Your task to perform on an android device: turn smart compose on in the gmail app Image 0: 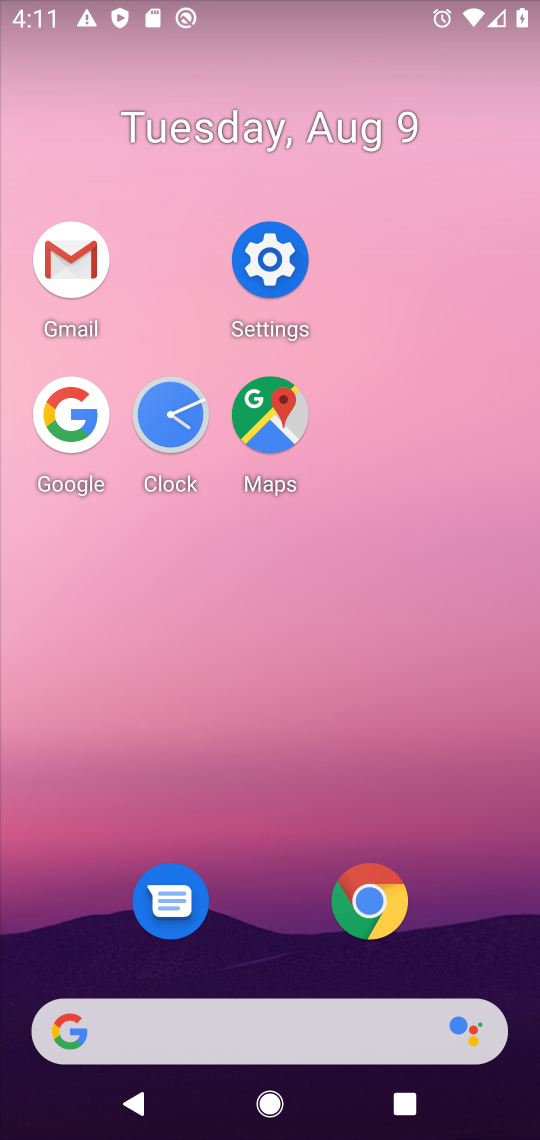
Step 0: click (50, 284)
Your task to perform on an android device: turn smart compose on in the gmail app Image 1: 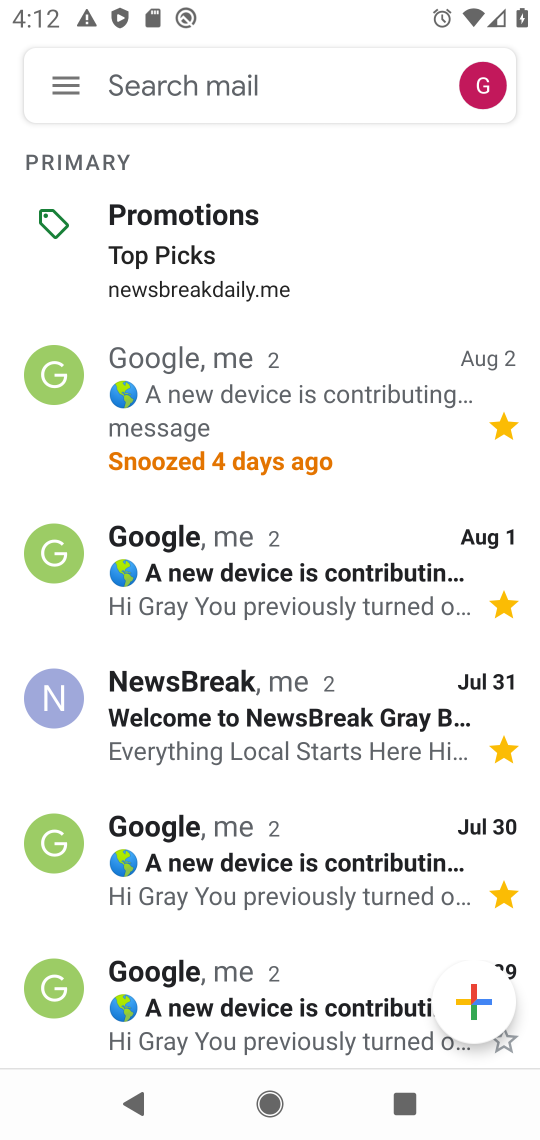
Step 1: click (52, 85)
Your task to perform on an android device: turn smart compose on in the gmail app Image 2: 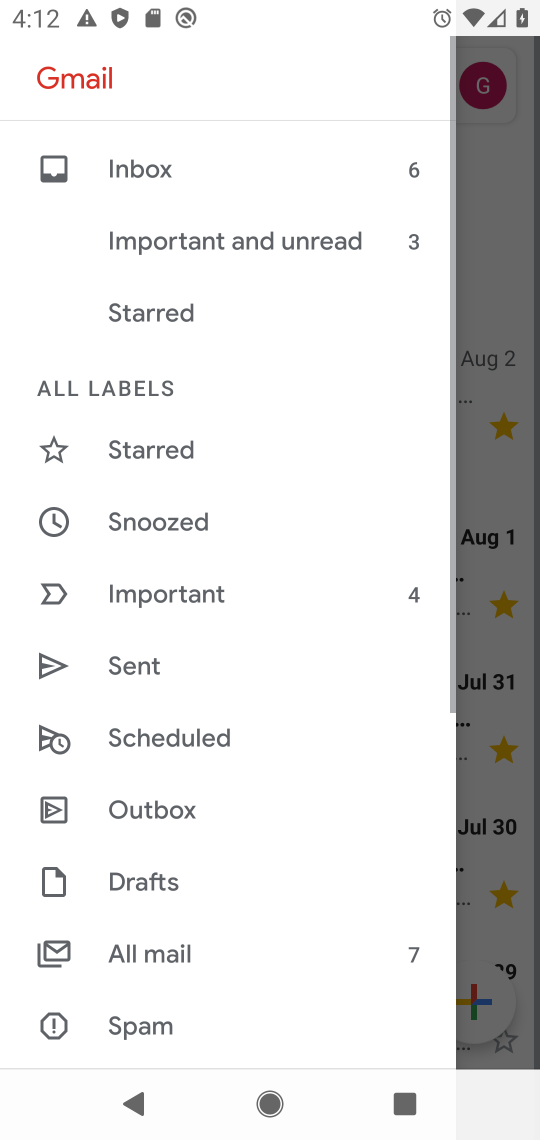
Step 2: drag from (250, 912) to (200, 236)
Your task to perform on an android device: turn smart compose on in the gmail app Image 3: 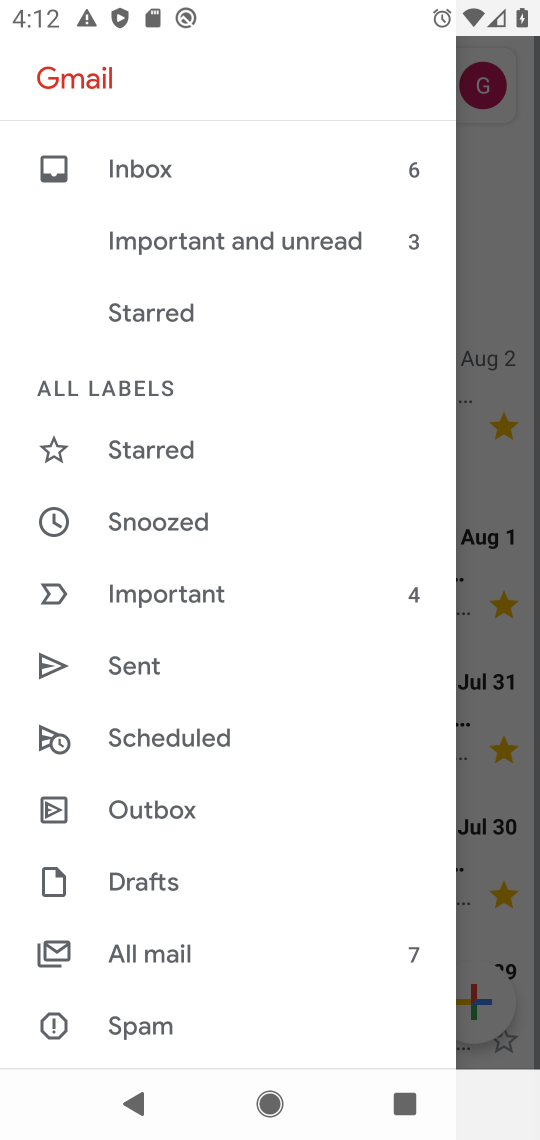
Step 3: drag from (139, 932) to (216, 408)
Your task to perform on an android device: turn smart compose on in the gmail app Image 4: 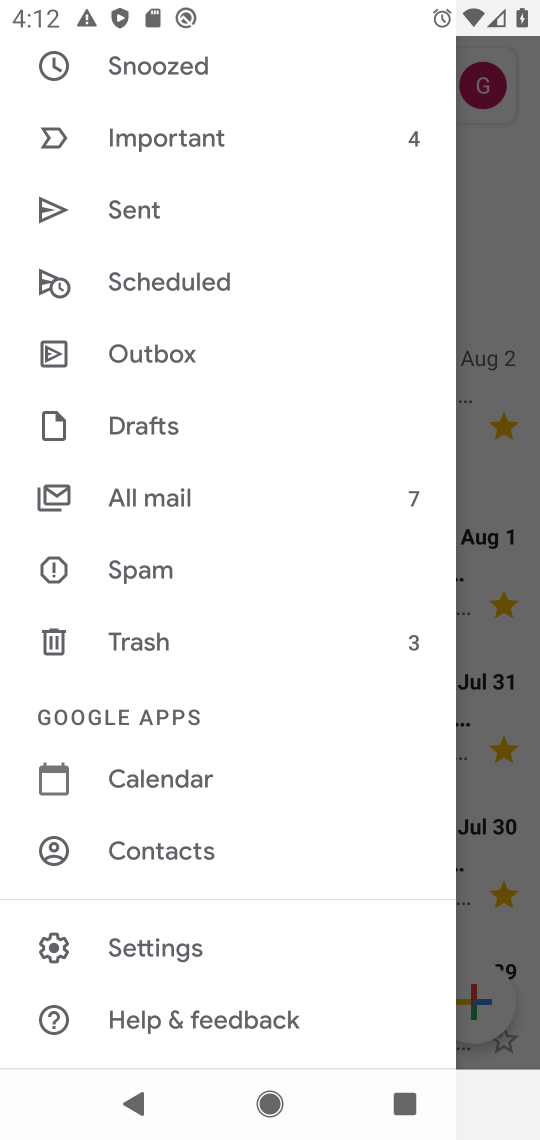
Step 4: drag from (148, 905) to (113, 342)
Your task to perform on an android device: turn smart compose on in the gmail app Image 5: 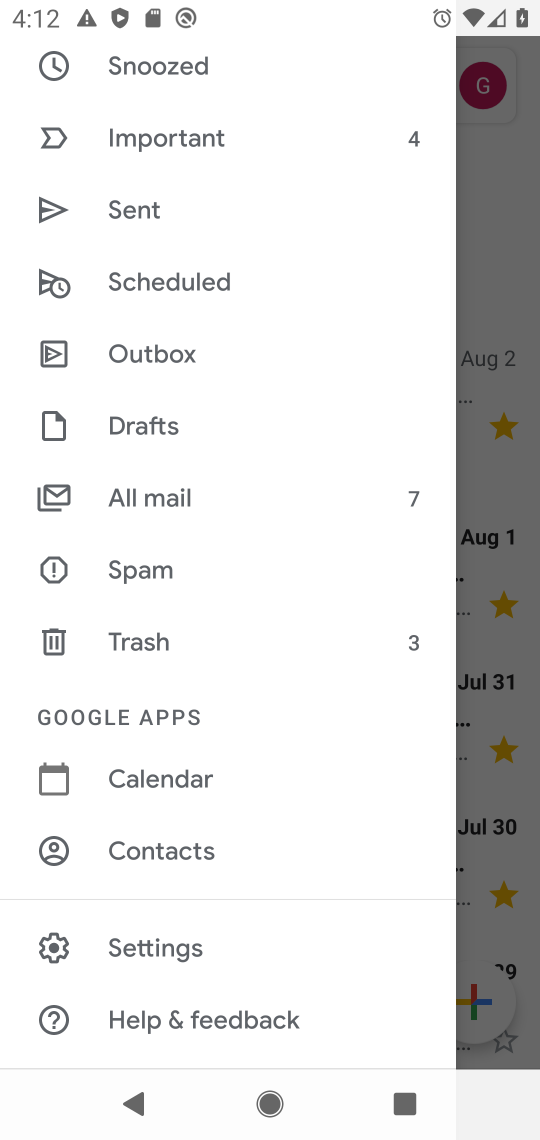
Step 5: click (156, 965)
Your task to perform on an android device: turn smart compose on in the gmail app Image 6: 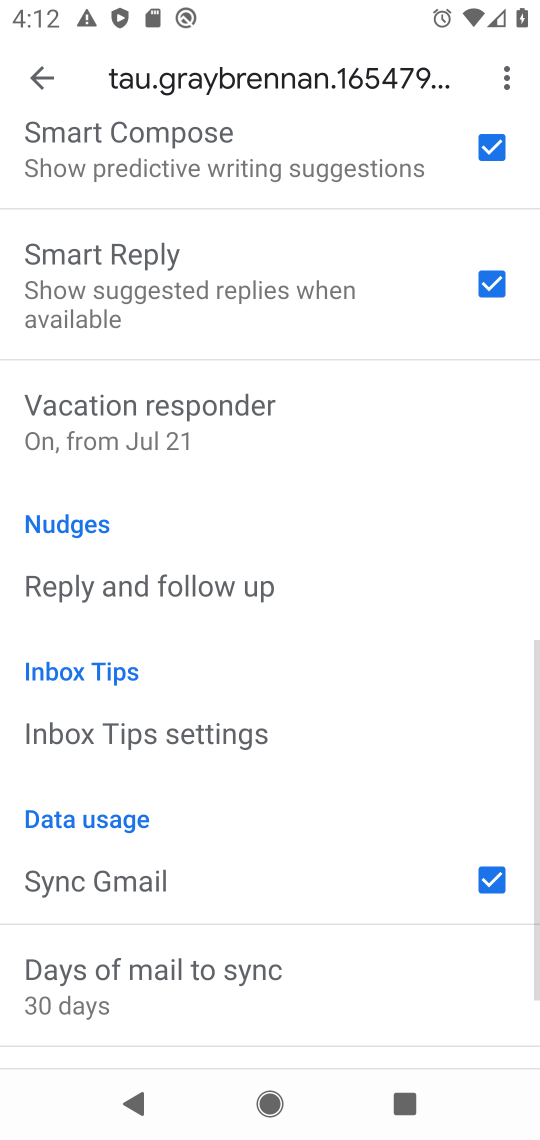
Step 6: task complete